Your task to perform on an android device: show emergency info Image 0: 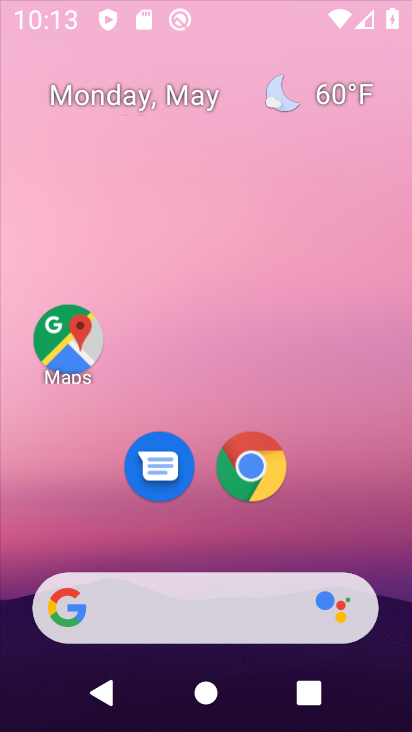
Step 0: press back button
Your task to perform on an android device: show emergency info Image 1: 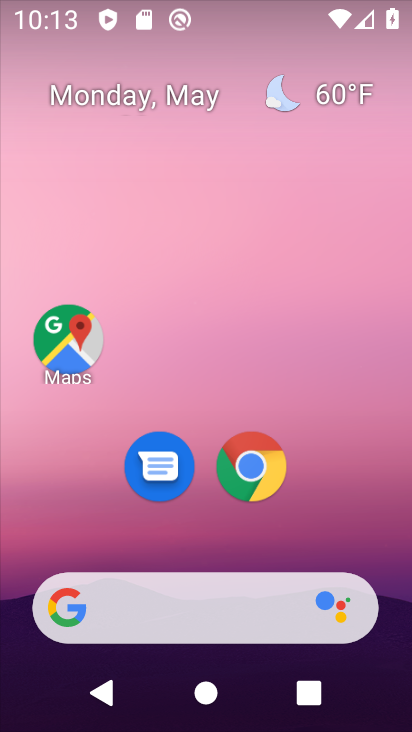
Step 1: drag from (251, 666) to (159, 67)
Your task to perform on an android device: show emergency info Image 2: 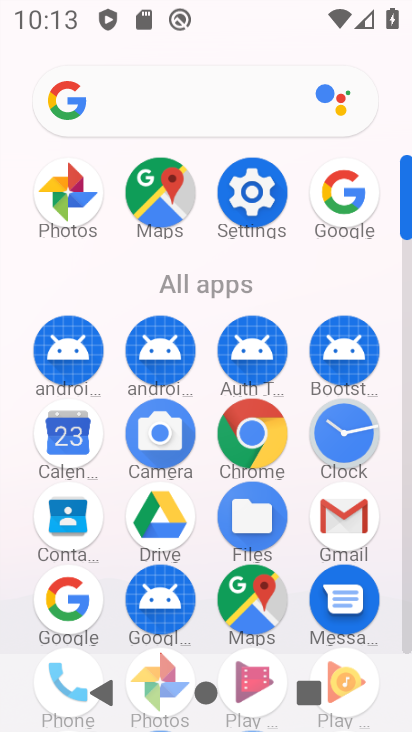
Step 2: click (247, 172)
Your task to perform on an android device: show emergency info Image 3: 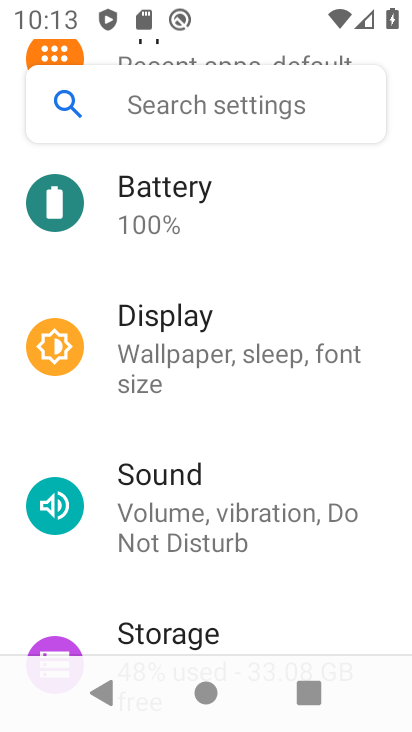
Step 3: click (184, 256)
Your task to perform on an android device: show emergency info Image 4: 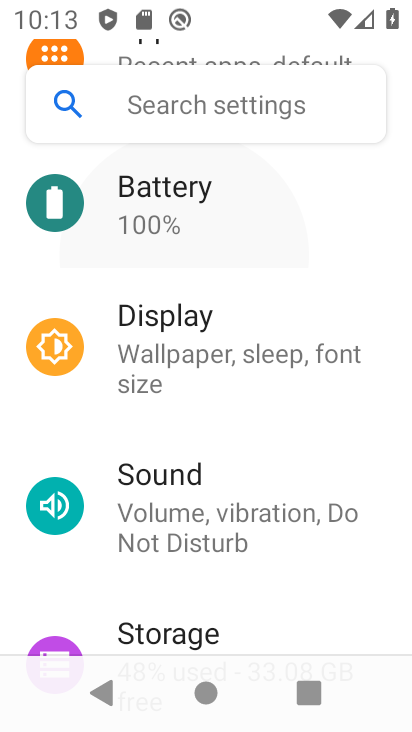
Step 4: drag from (214, 463) to (214, 185)
Your task to perform on an android device: show emergency info Image 5: 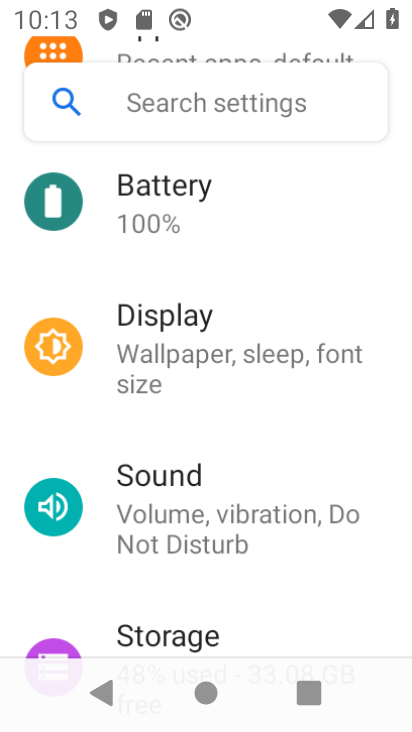
Step 5: drag from (221, 539) to (259, 168)
Your task to perform on an android device: show emergency info Image 6: 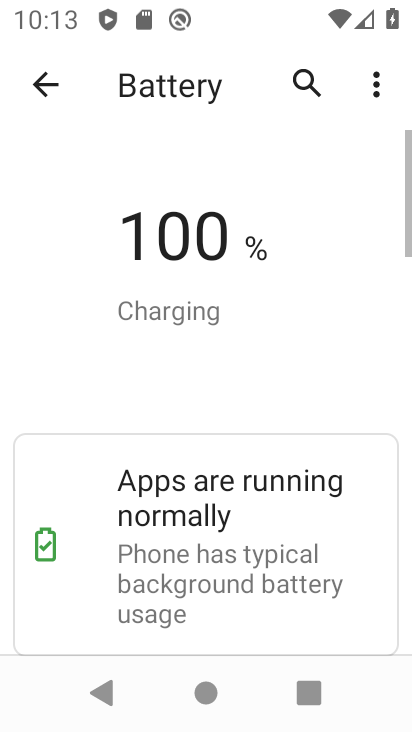
Step 6: drag from (202, 537) to (245, 166)
Your task to perform on an android device: show emergency info Image 7: 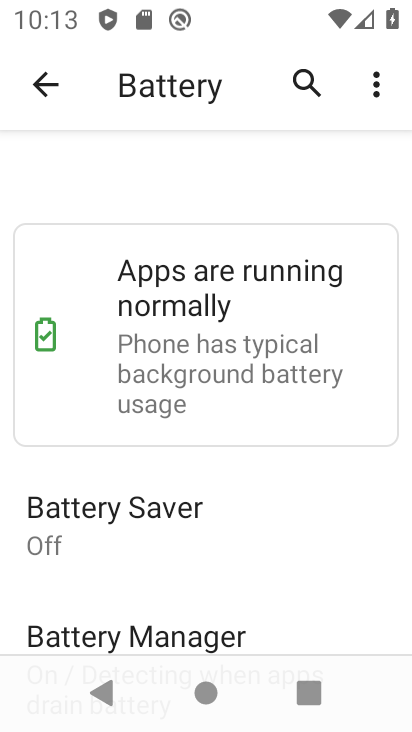
Step 7: drag from (199, 536) to (196, 196)
Your task to perform on an android device: show emergency info Image 8: 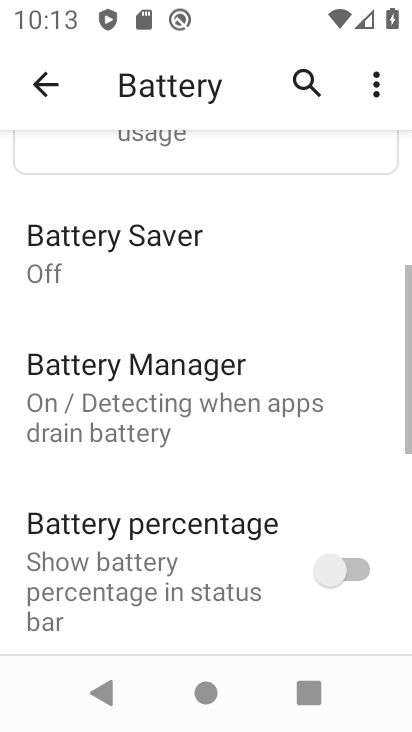
Step 8: drag from (225, 567) to (176, 204)
Your task to perform on an android device: show emergency info Image 9: 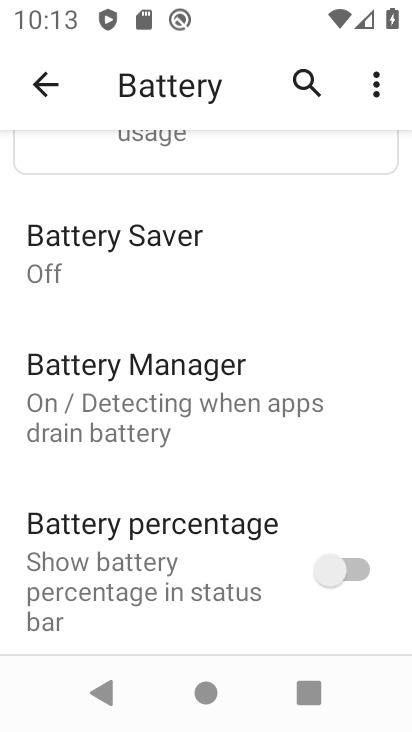
Step 9: click (42, 86)
Your task to perform on an android device: show emergency info Image 10: 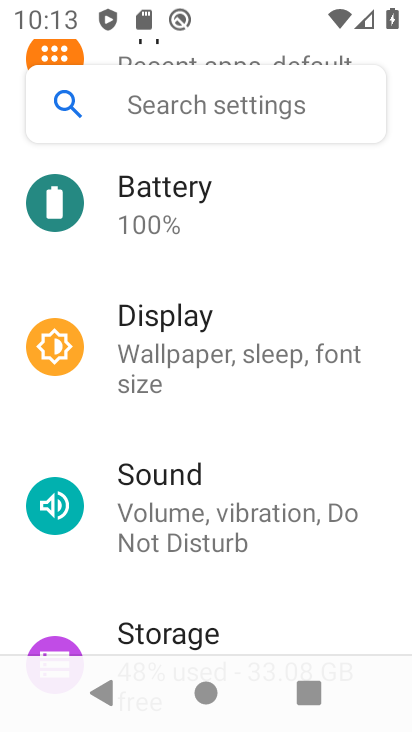
Step 10: drag from (205, 572) to (205, 257)
Your task to perform on an android device: show emergency info Image 11: 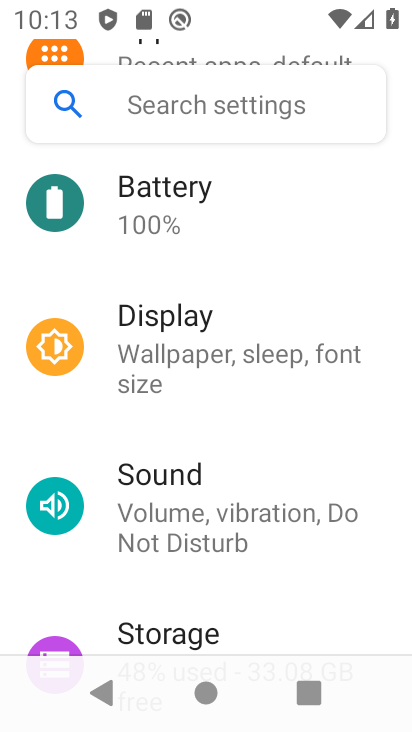
Step 11: drag from (194, 387) to (193, 126)
Your task to perform on an android device: show emergency info Image 12: 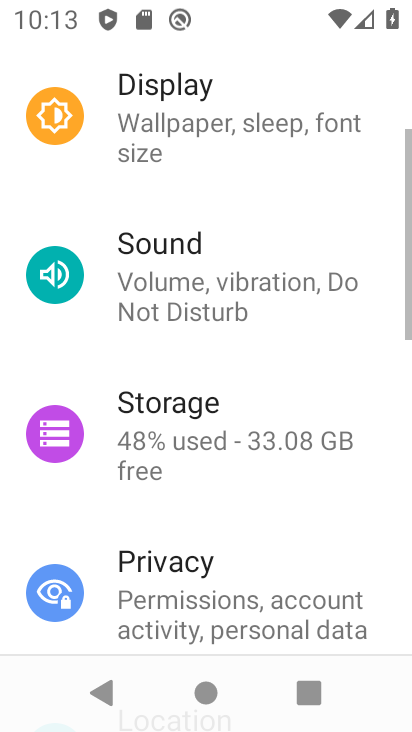
Step 12: drag from (171, 376) to (182, 186)
Your task to perform on an android device: show emergency info Image 13: 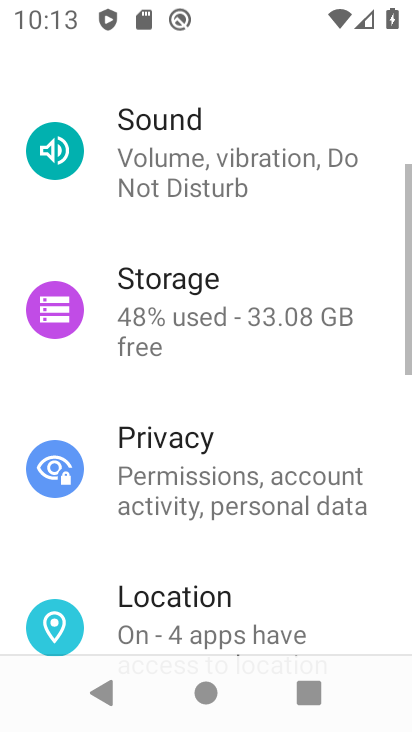
Step 13: drag from (171, 411) to (171, 237)
Your task to perform on an android device: show emergency info Image 14: 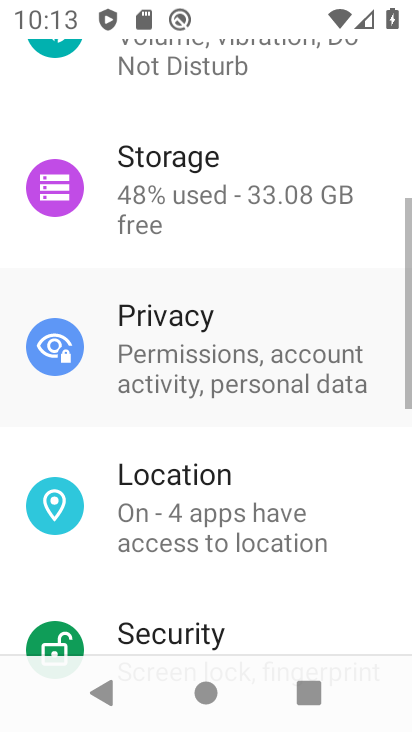
Step 14: drag from (199, 417) to (226, 232)
Your task to perform on an android device: show emergency info Image 15: 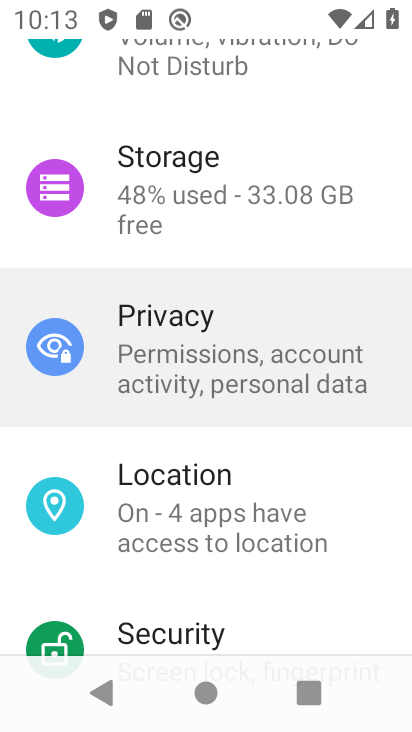
Step 15: drag from (226, 412) to (226, 191)
Your task to perform on an android device: show emergency info Image 16: 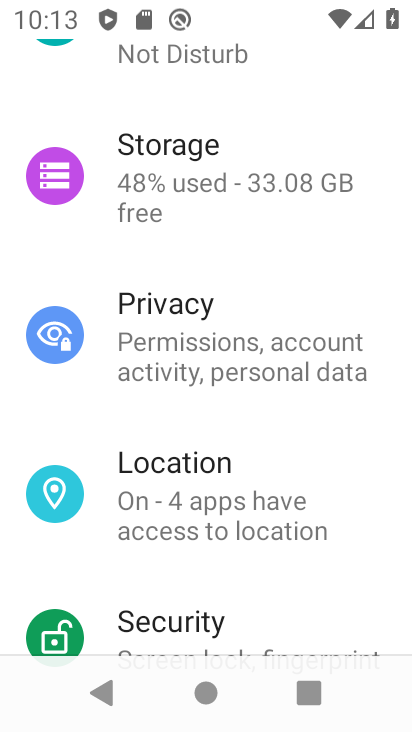
Step 16: drag from (219, 476) to (239, 132)
Your task to perform on an android device: show emergency info Image 17: 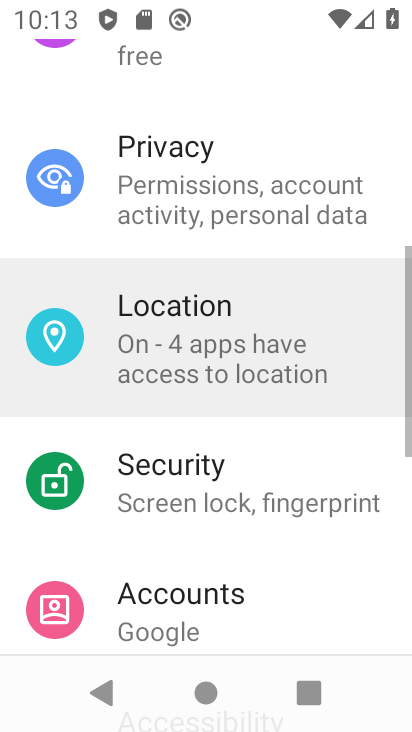
Step 17: drag from (137, 500) to (104, 306)
Your task to perform on an android device: show emergency info Image 18: 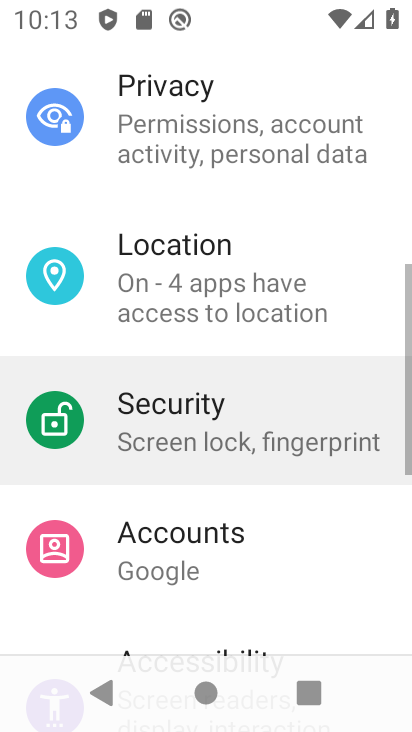
Step 18: drag from (124, 458) to (162, 281)
Your task to perform on an android device: show emergency info Image 19: 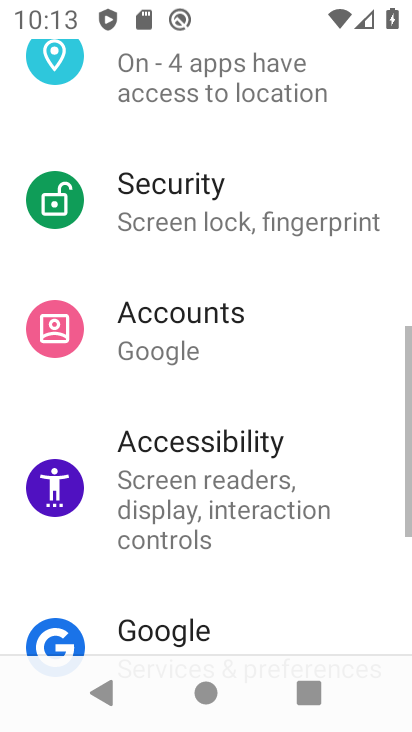
Step 19: drag from (173, 430) to (183, 167)
Your task to perform on an android device: show emergency info Image 20: 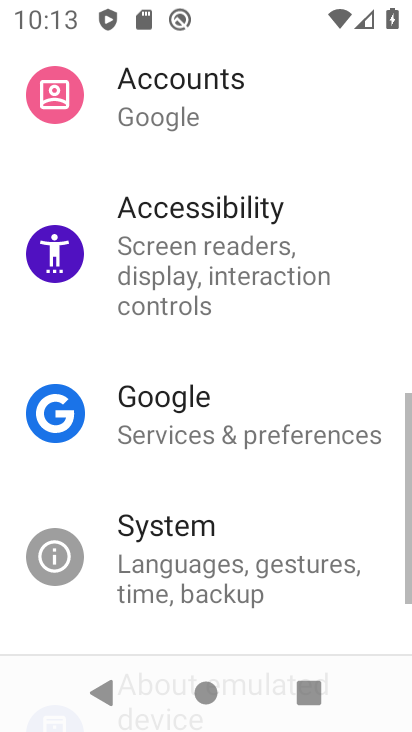
Step 20: drag from (212, 413) to (221, 204)
Your task to perform on an android device: show emergency info Image 21: 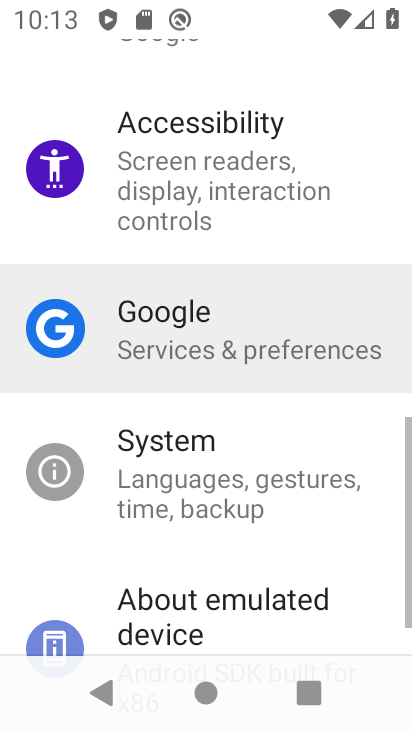
Step 21: drag from (223, 472) to (241, 201)
Your task to perform on an android device: show emergency info Image 22: 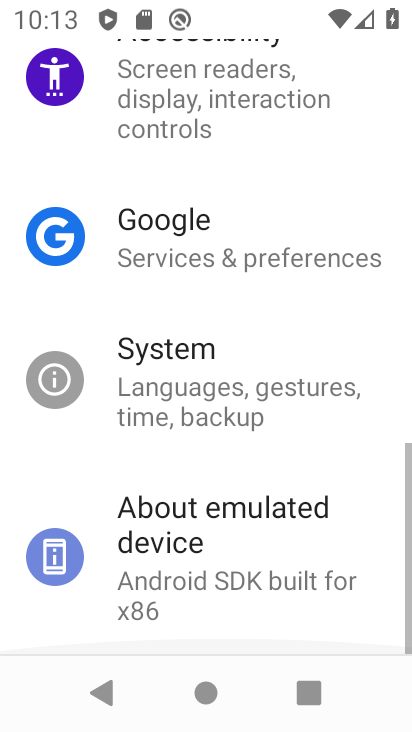
Step 22: drag from (217, 368) to (223, 121)
Your task to perform on an android device: show emergency info Image 23: 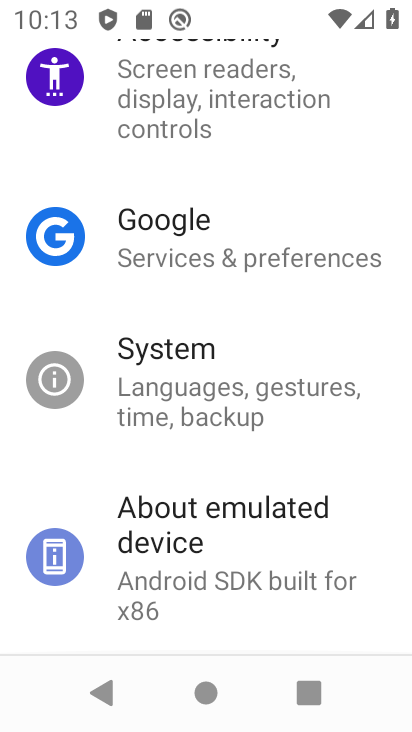
Step 23: drag from (224, 422) to (222, 171)
Your task to perform on an android device: show emergency info Image 24: 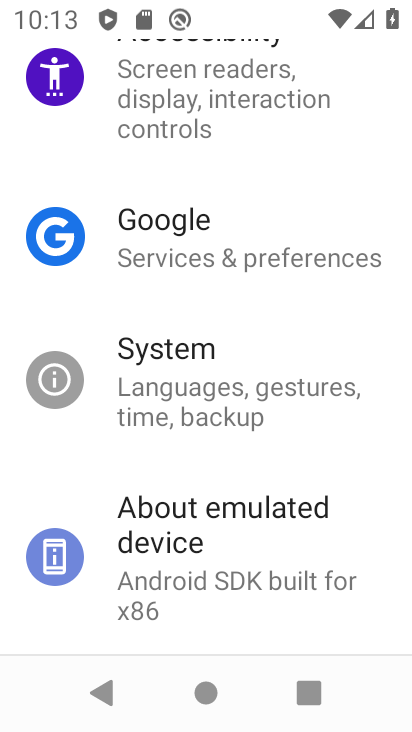
Step 24: drag from (263, 139) to (319, 177)
Your task to perform on an android device: show emergency info Image 25: 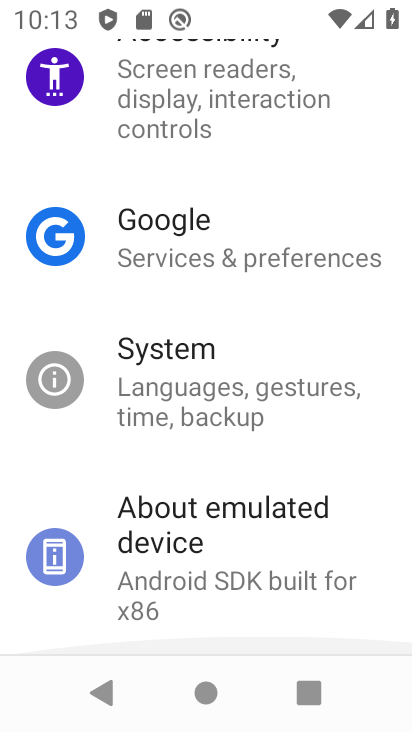
Step 25: drag from (275, 436) to (311, 229)
Your task to perform on an android device: show emergency info Image 26: 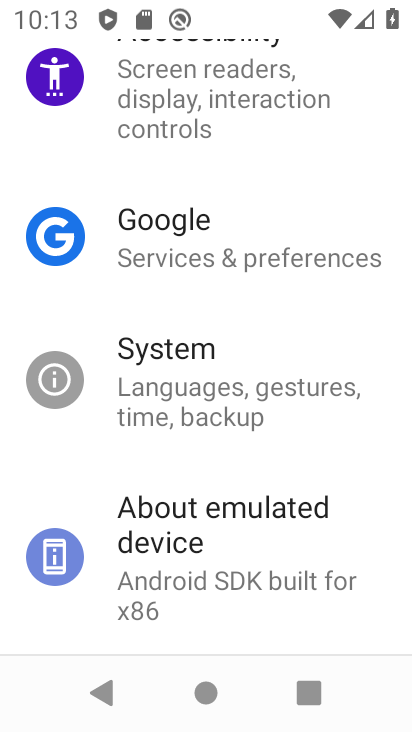
Step 26: drag from (315, 301) to (287, 529)
Your task to perform on an android device: show emergency info Image 27: 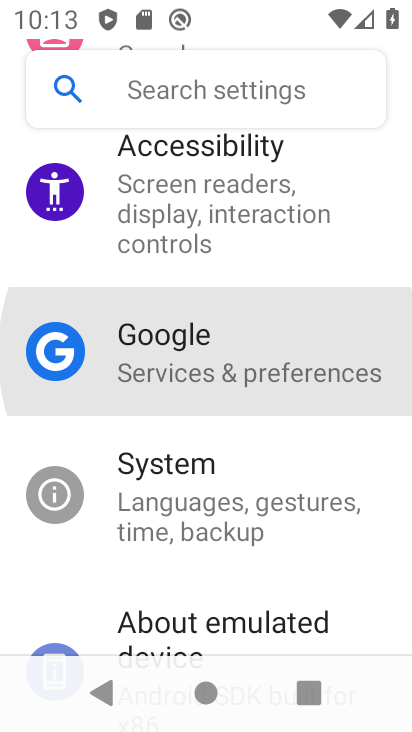
Step 27: drag from (208, 285) to (199, 522)
Your task to perform on an android device: show emergency info Image 28: 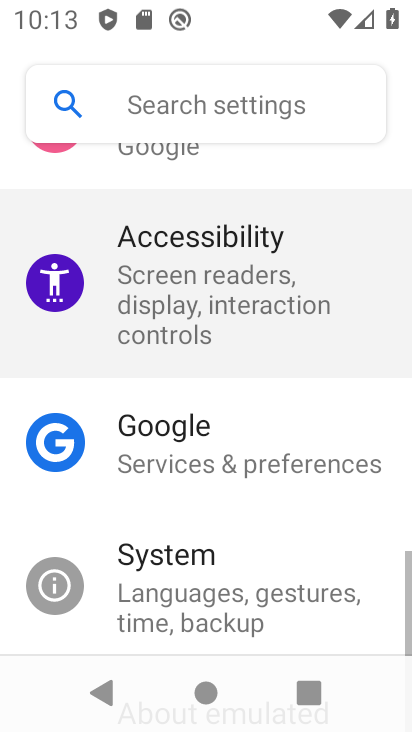
Step 28: drag from (175, 281) to (170, 452)
Your task to perform on an android device: show emergency info Image 29: 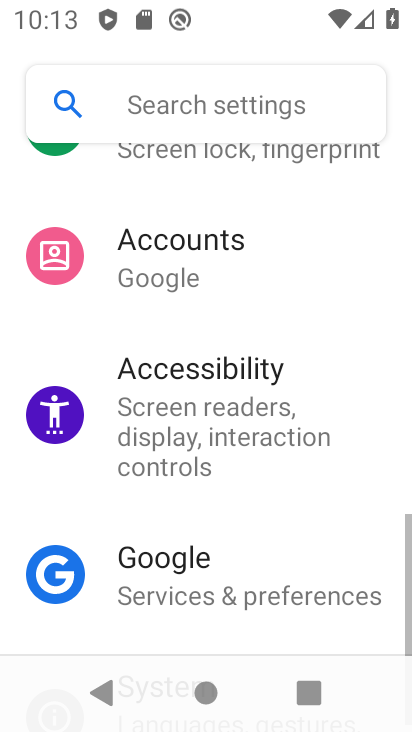
Step 29: drag from (207, 220) to (208, 552)
Your task to perform on an android device: show emergency info Image 30: 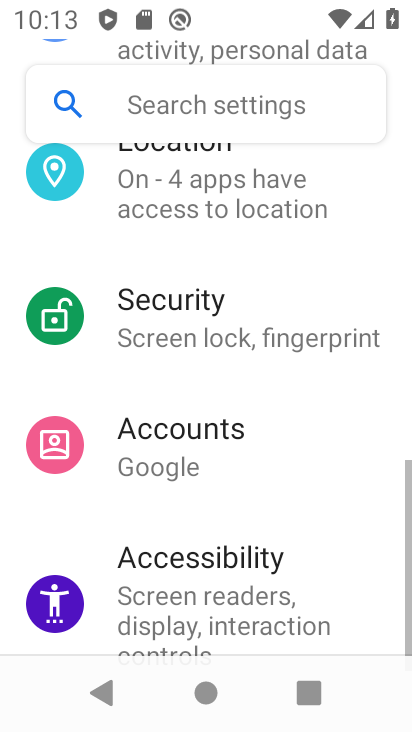
Step 30: drag from (133, 527) to (125, 602)
Your task to perform on an android device: show emergency info Image 31: 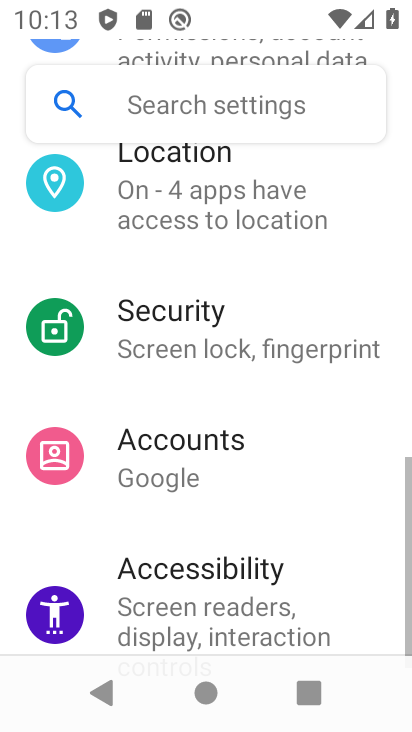
Step 31: drag from (191, 461) to (191, 630)
Your task to perform on an android device: show emergency info Image 32: 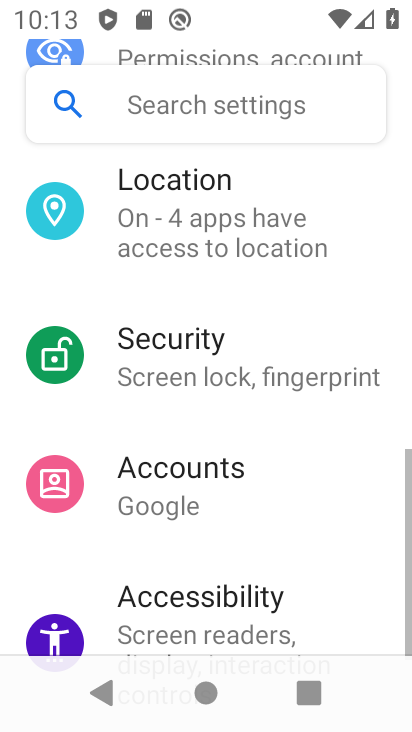
Step 32: drag from (188, 483) to (188, 664)
Your task to perform on an android device: show emergency info Image 33: 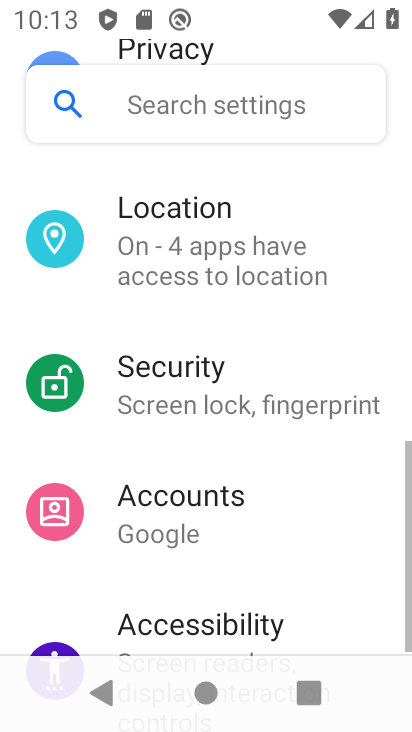
Step 33: drag from (162, 278) to (165, 547)
Your task to perform on an android device: show emergency info Image 34: 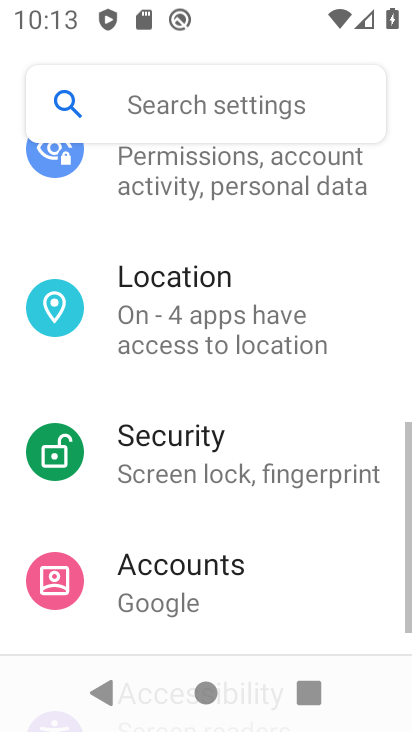
Step 34: drag from (179, 332) to (183, 517)
Your task to perform on an android device: show emergency info Image 35: 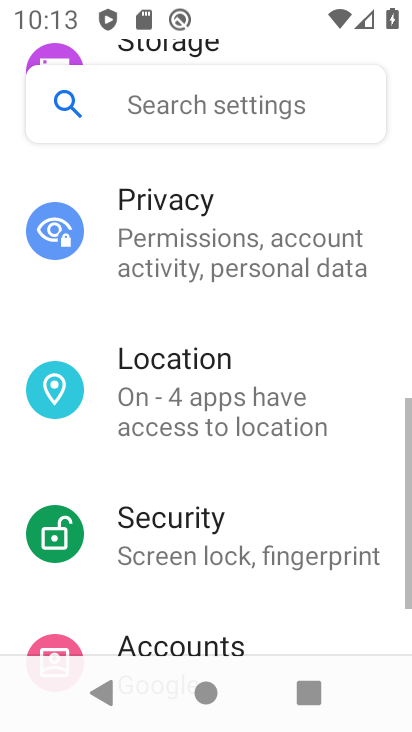
Step 35: drag from (174, 262) to (182, 629)
Your task to perform on an android device: show emergency info Image 36: 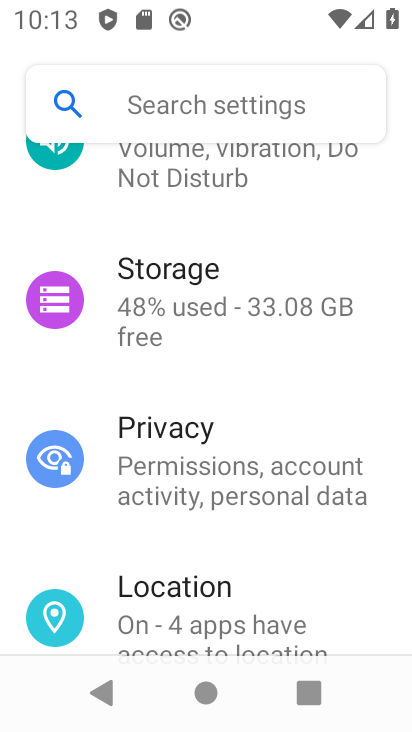
Step 36: click (176, 610)
Your task to perform on an android device: show emergency info Image 37: 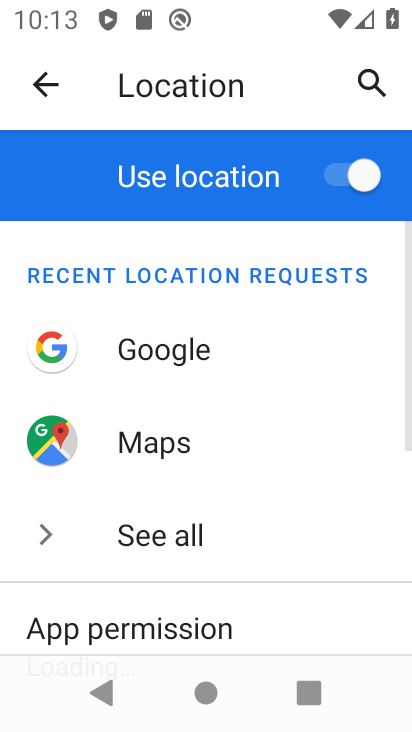
Step 37: drag from (192, 502) to (228, 604)
Your task to perform on an android device: show emergency info Image 38: 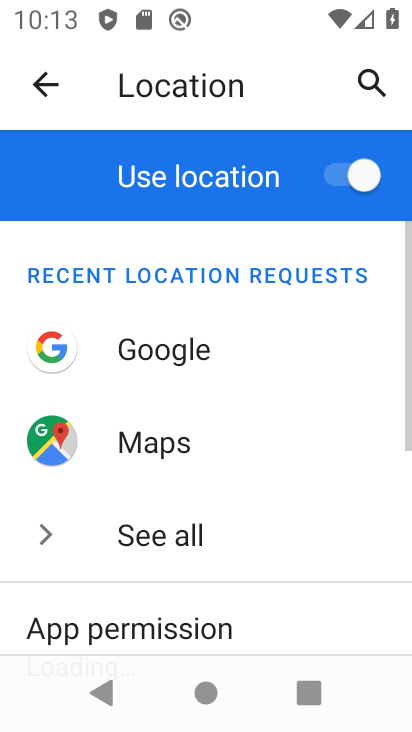
Step 38: click (223, 573)
Your task to perform on an android device: show emergency info Image 39: 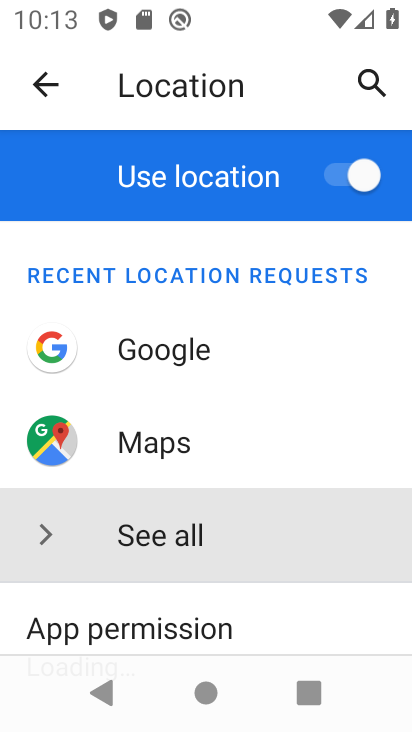
Step 39: task complete